Your task to perform on an android device: open a new tab in the chrome app Image 0: 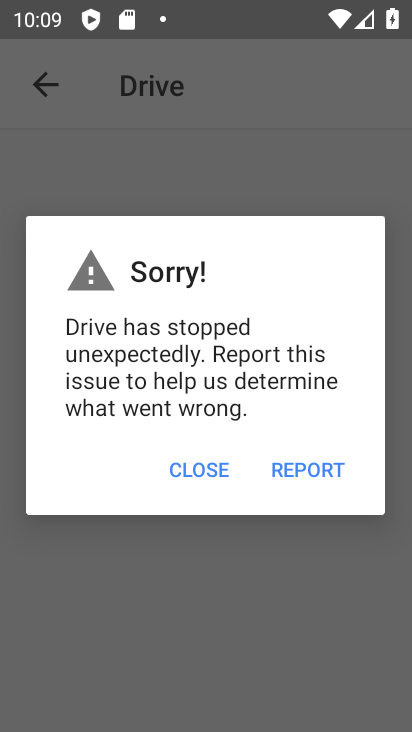
Step 0: press home button
Your task to perform on an android device: open a new tab in the chrome app Image 1: 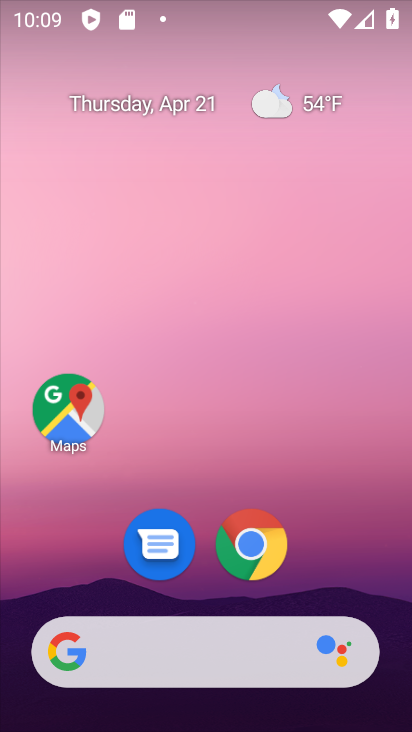
Step 1: click (256, 548)
Your task to perform on an android device: open a new tab in the chrome app Image 2: 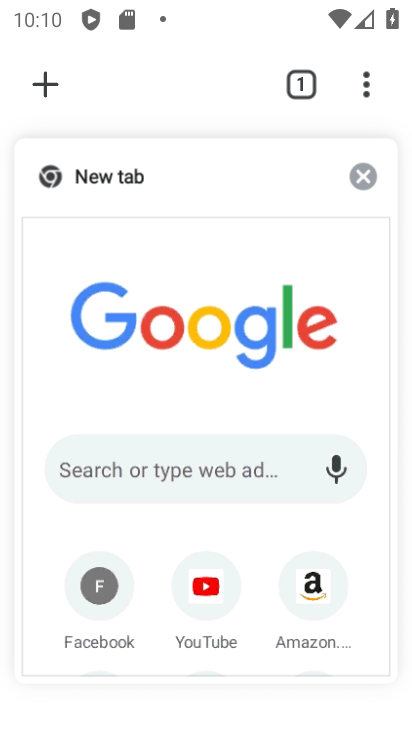
Step 2: click (43, 82)
Your task to perform on an android device: open a new tab in the chrome app Image 3: 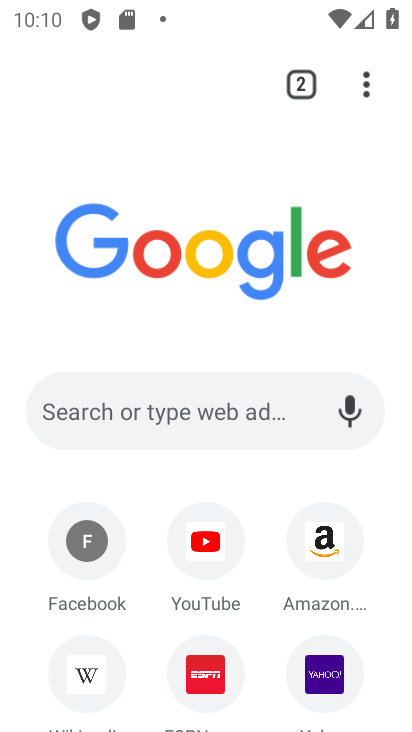
Step 3: task complete